Your task to perform on an android device: change the clock display to analog Image 0: 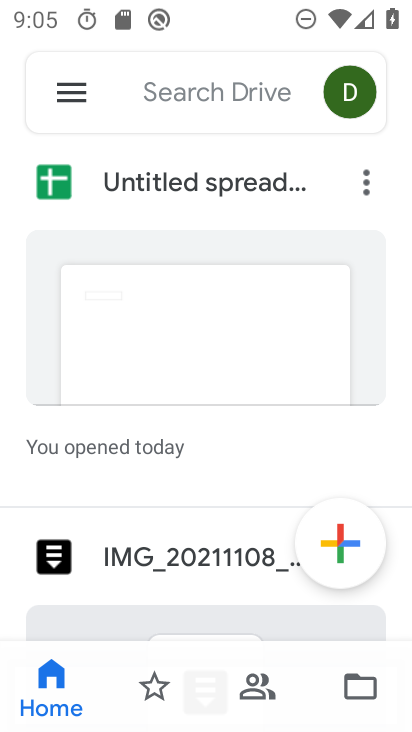
Step 0: press home button
Your task to perform on an android device: change the clock display to analog Image 1: 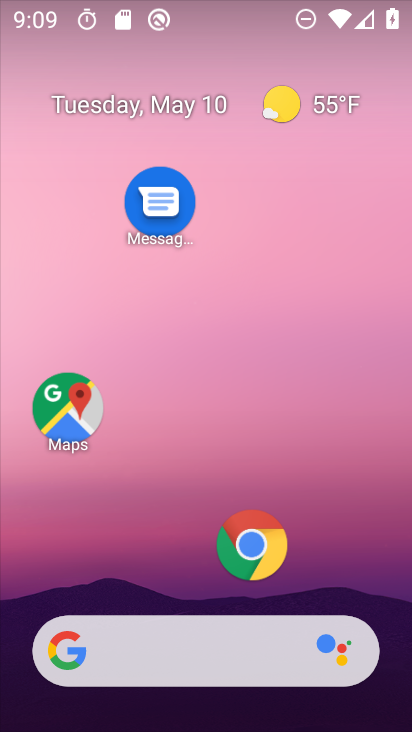
Step 1: drag from (161, 575) to (194, 48)
Your task to perform on an android device: change the clock display to analog Image 2: 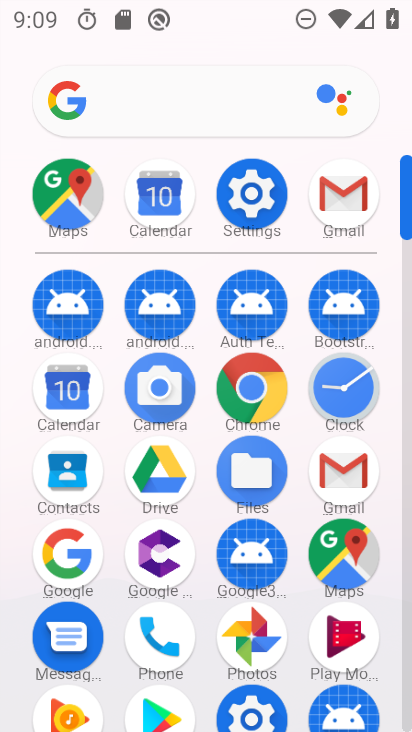
Step 2: click (347, 402)
Your task to perform on an android device: change the clock display to analog Image 3: 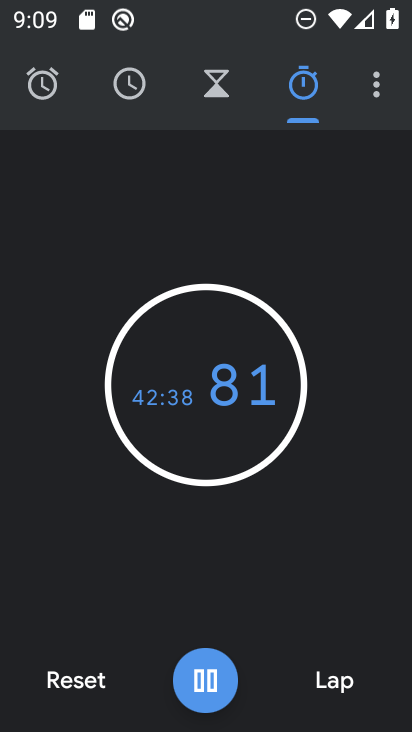
Step 3: click (378, 80)
Your task to perform on an android device: change the clock display to analog Image 4: 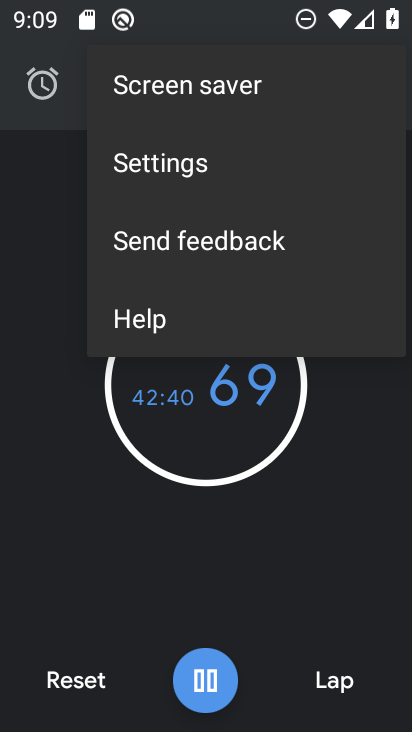
Step 4: click (237, 166)
Your task to perform on an android device: change the clock display to analog Image 5: 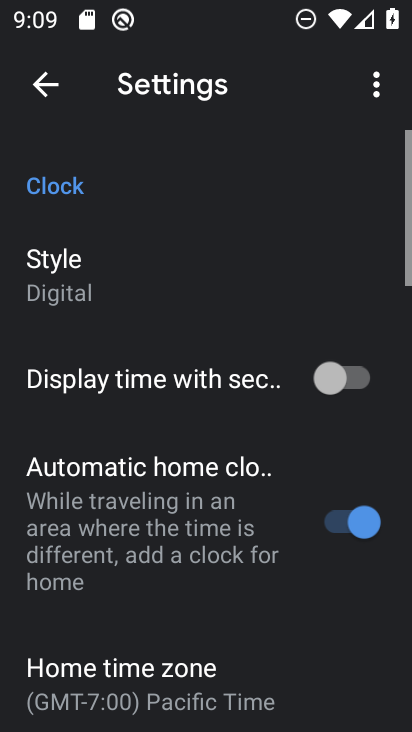
Step 5: click (124, 296)
Your task to perform on an android device: change the clock display to analog Image 6: 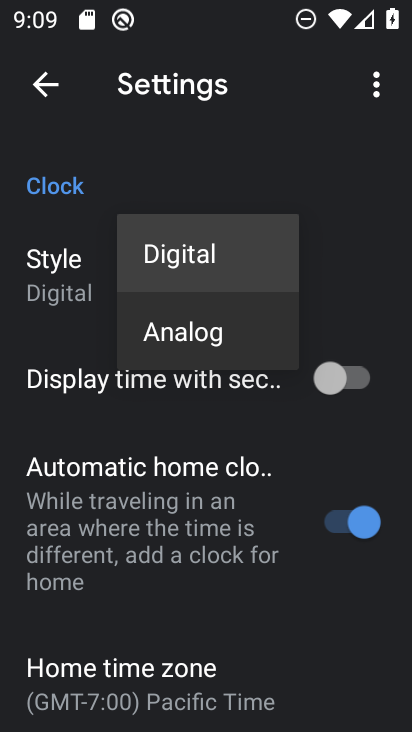
Step 6: click (145, 309)
Your task to perform on an android device: change the clock display to analog Image 7: 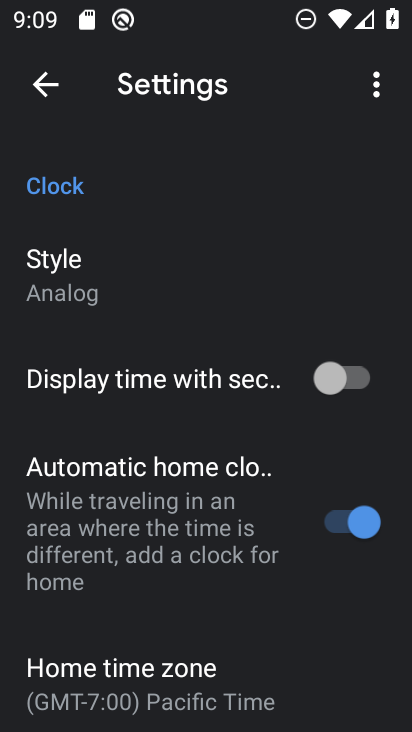
Step 7: task complete